Your task to perform on an android device: change alarm snooze length Image 0: 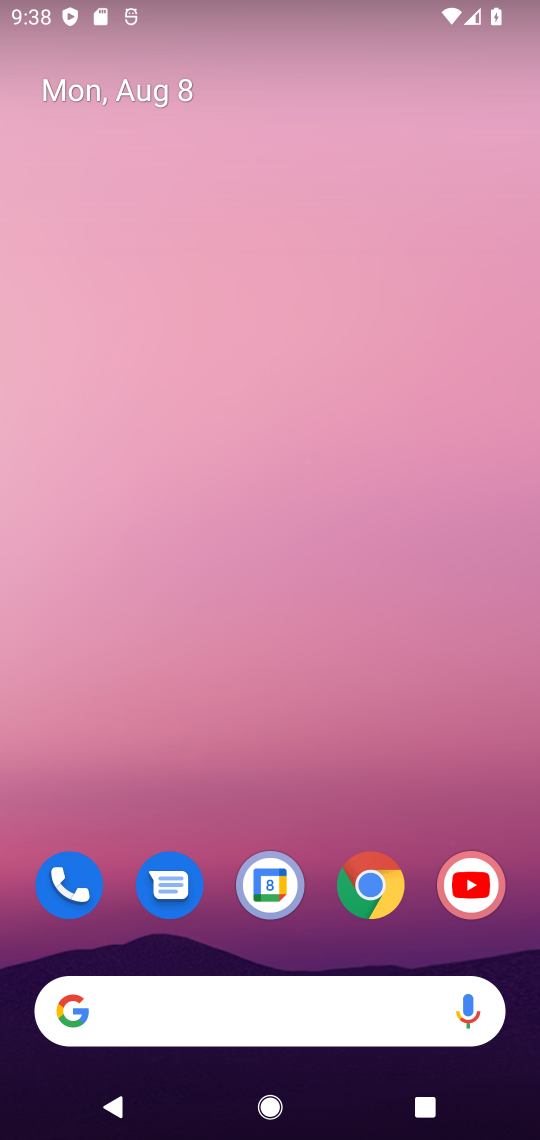
Step 0: click (159, 662)
Your task to perform on an android device: change alarm snooze length Image 1: 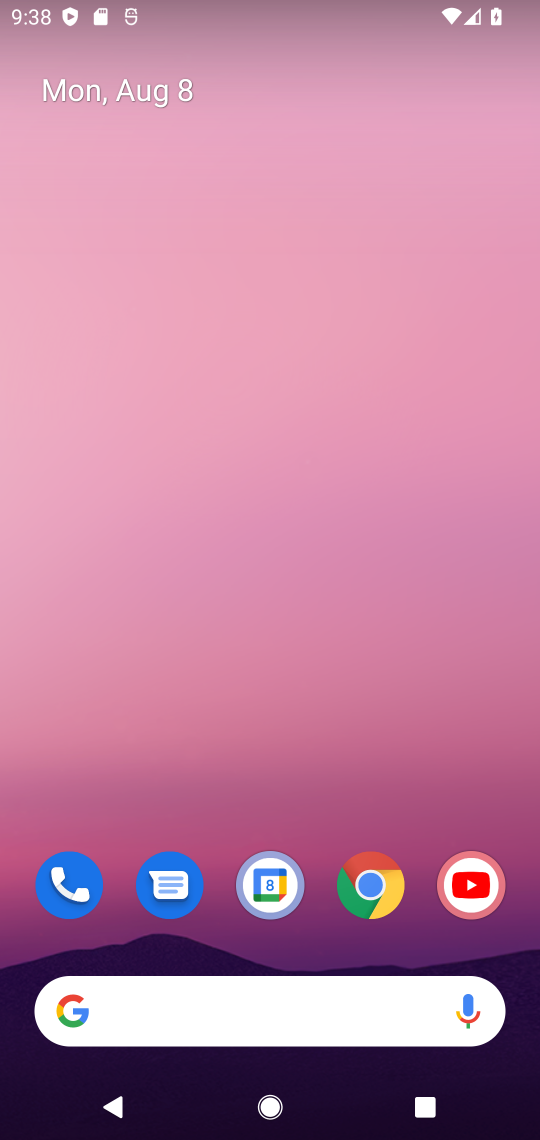
Step 1: click (305, 269)
Your task to perform on an android device: change alarm snooze length Image 2: 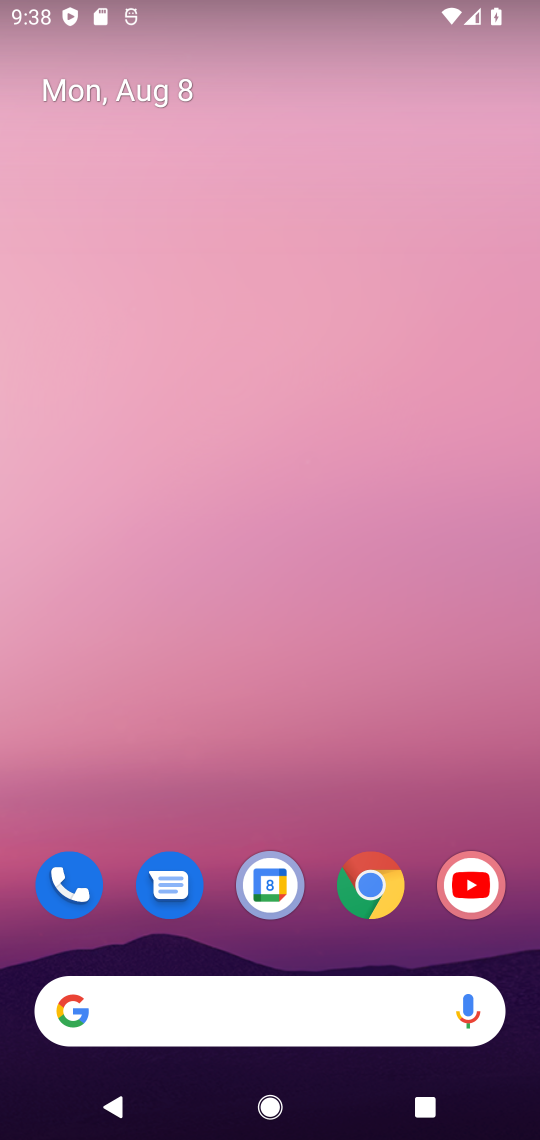
Step 2: drag from (80, 1076) to (195, 272)
Your task to perform on an android device: change alarm snooze length Image 3: 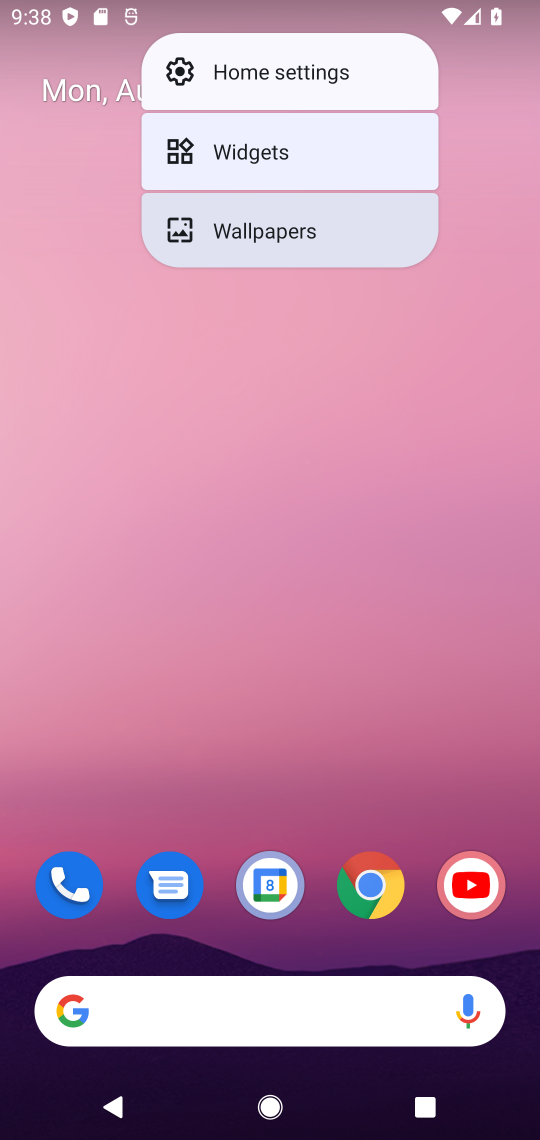
Step 3: drag from (13, 1054) to (310, 529)
Your task to perform on an android device: change alarm snooze length Image 4: 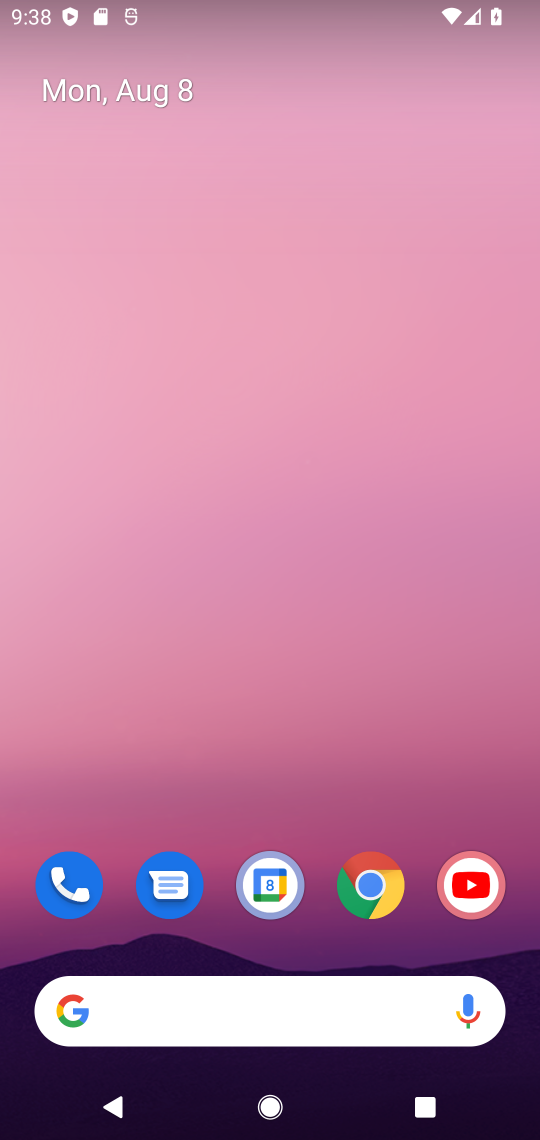
Step 4: drag from (104, 870) to (288, 488)
Your task to perform on an android device: change alarm snooze length Image 5: 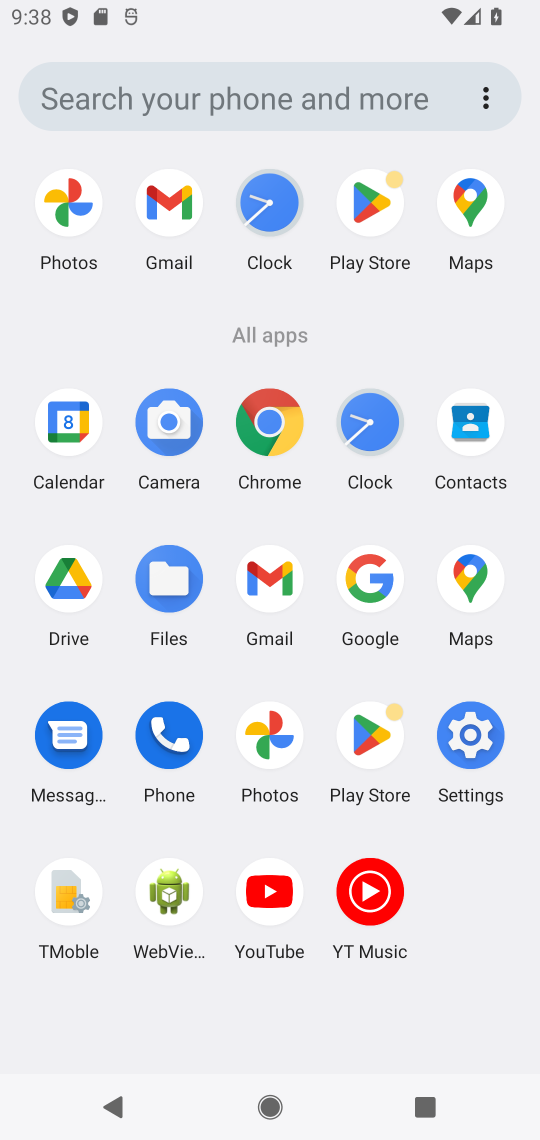
Step 5: click (376, 430)
Your task to perform on an android device: change alarm snooze length Image 6: 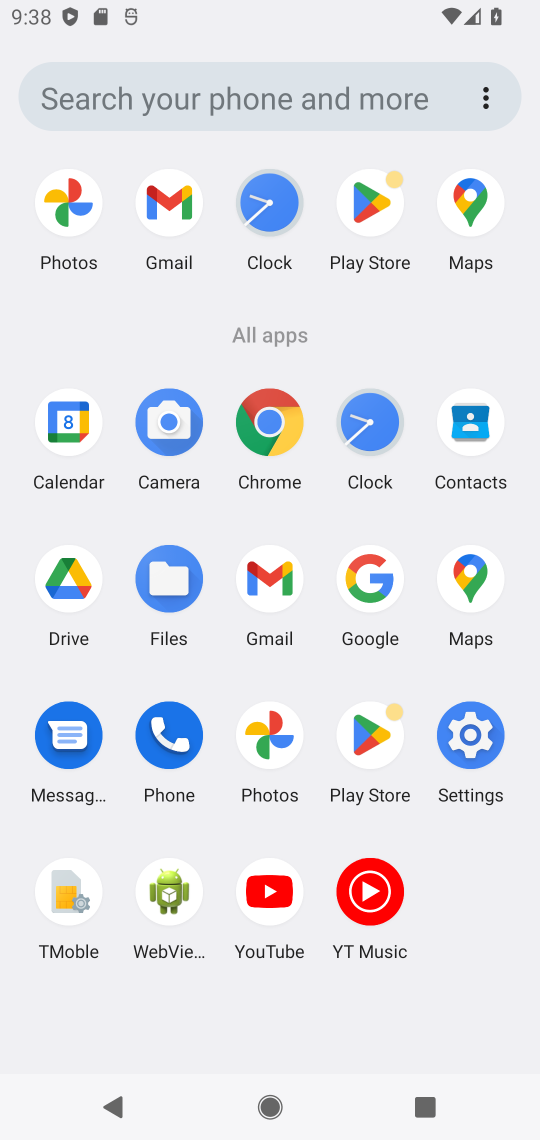
Step 6: click (376, 430)
Your task to perform on an android device: change alarm snooze length Image 7: 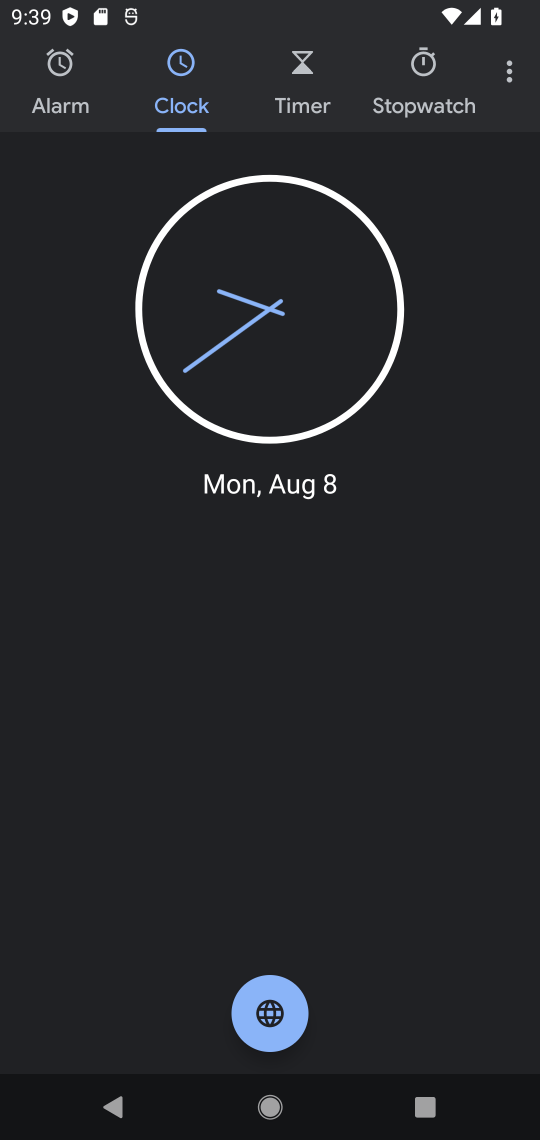
Step 7: click (513, 57)
Your task to perform on an android device: change alarm snooze length Image 8: 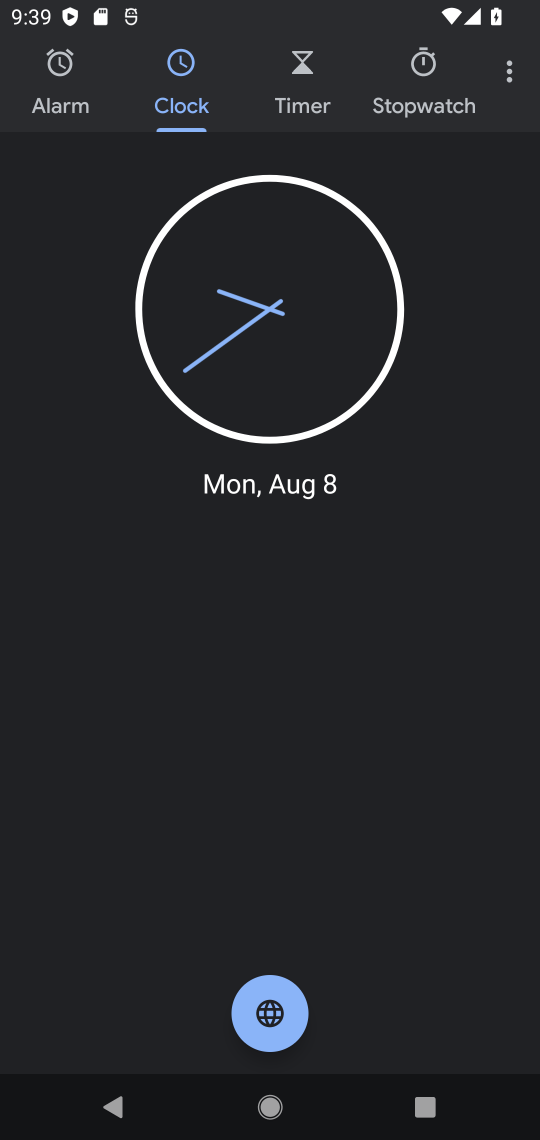
Step 8: click (511, 70)
Your task to perform on an android device: change alarm snooze length Image 9: 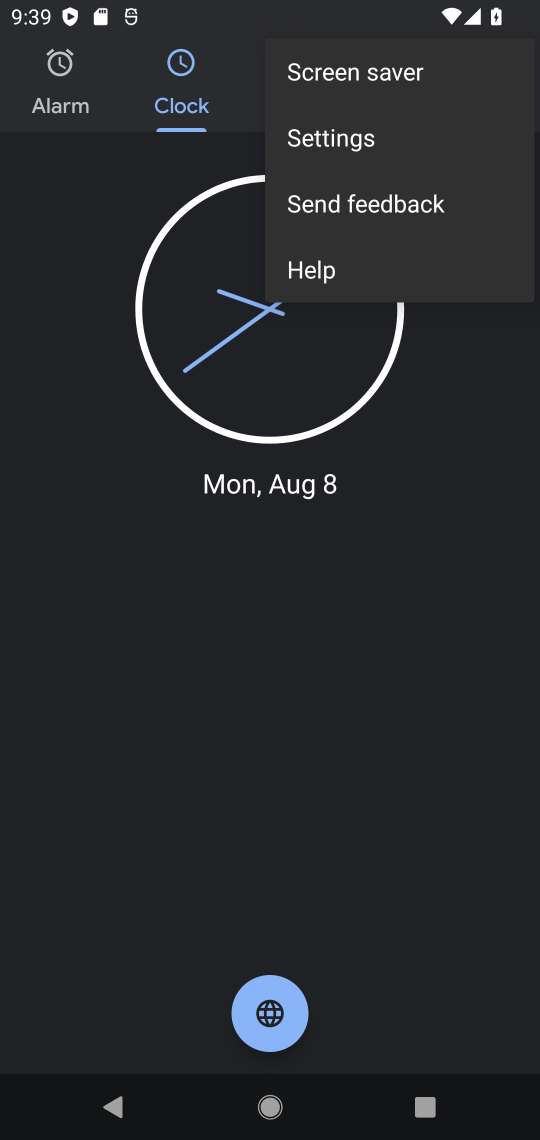
Step 9: click (428, 126)
Your task to perform on an android device: change alarm snooze length Image 10: 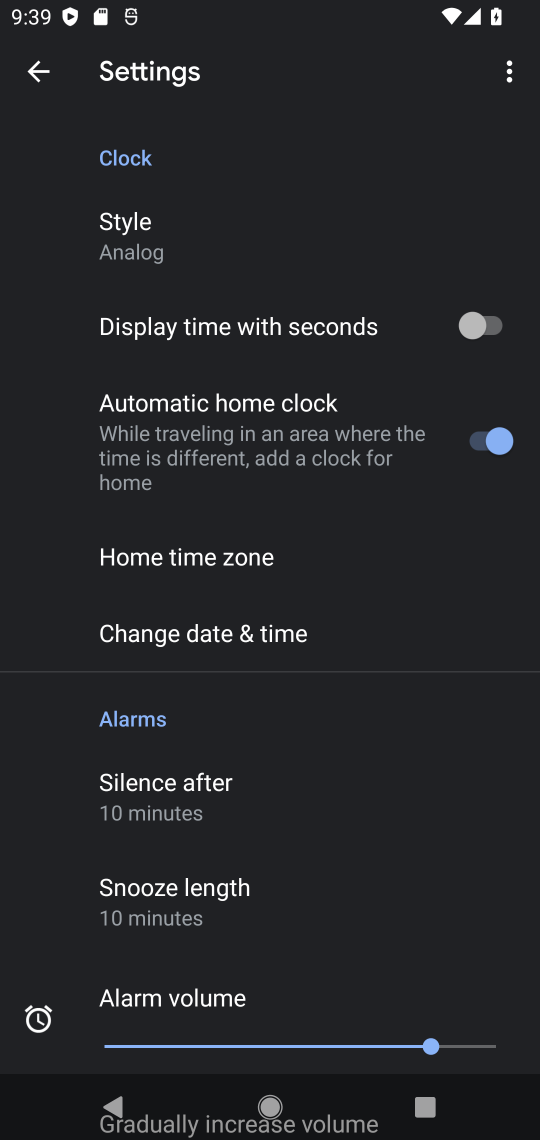
Step 10: click (227, 901)
Your task to perform on an android device: change alarm snooze length Image 11: 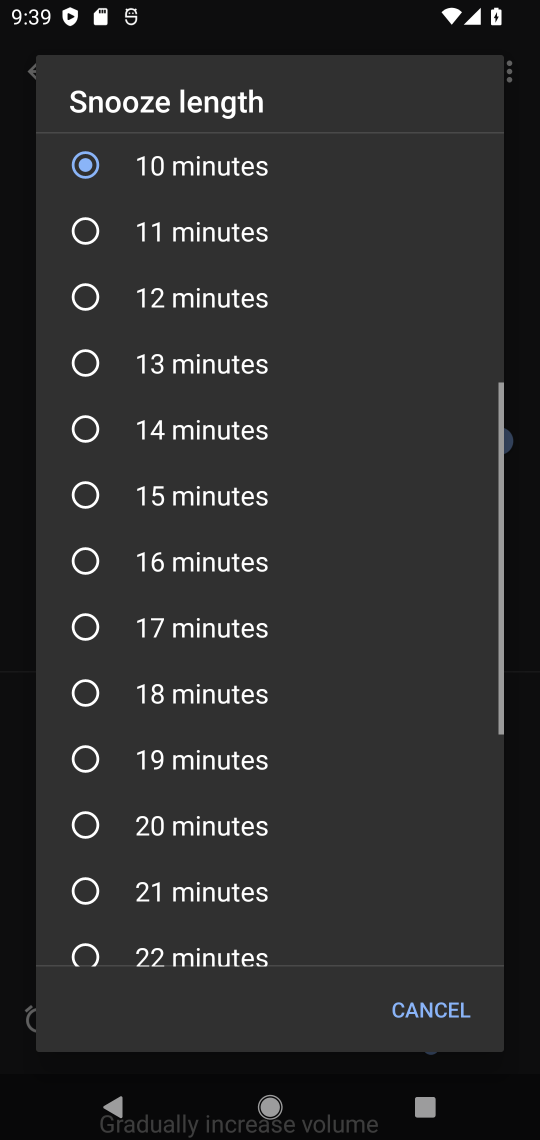
Step 11: click (226, 641)
Your task to perform on an android device: change alarm snooze length Image 12: 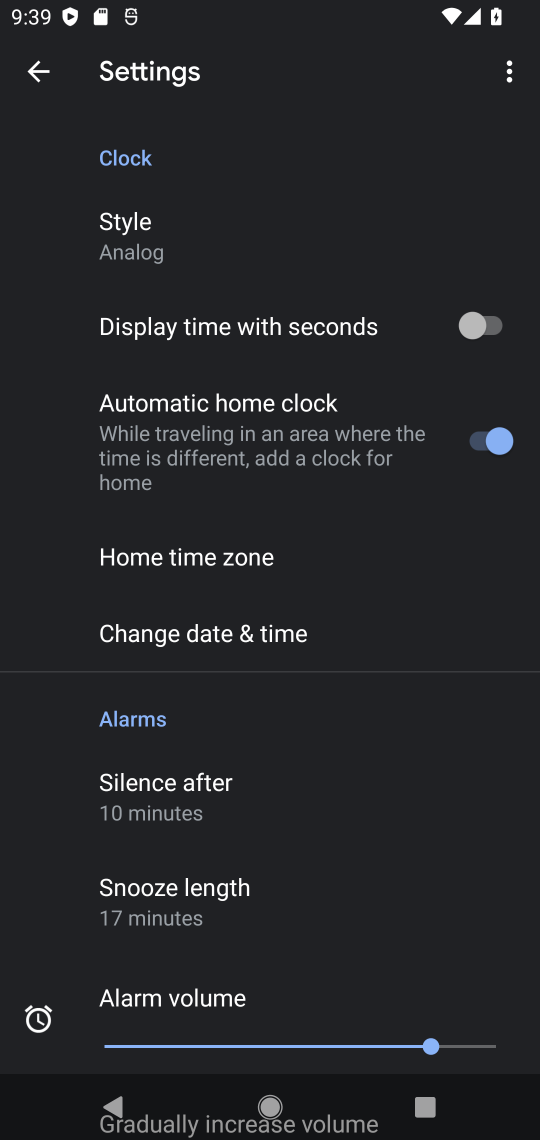
Step 12: task complete